Your task to perform on an android device: Go to notification settings Image 0: 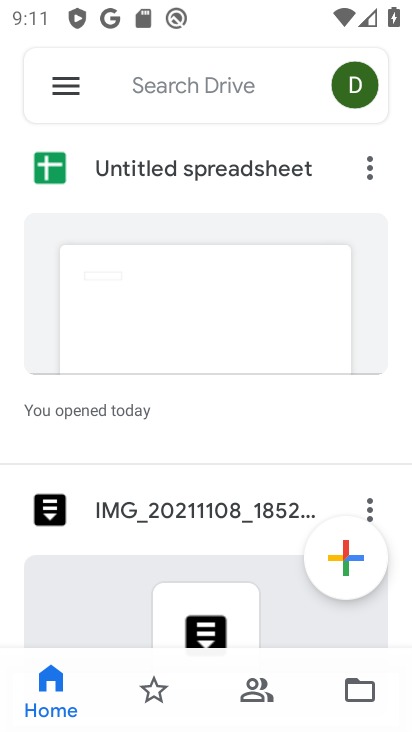
Step 0: press home button
Your task to perform on an android device: Go to notification settings Image 1: 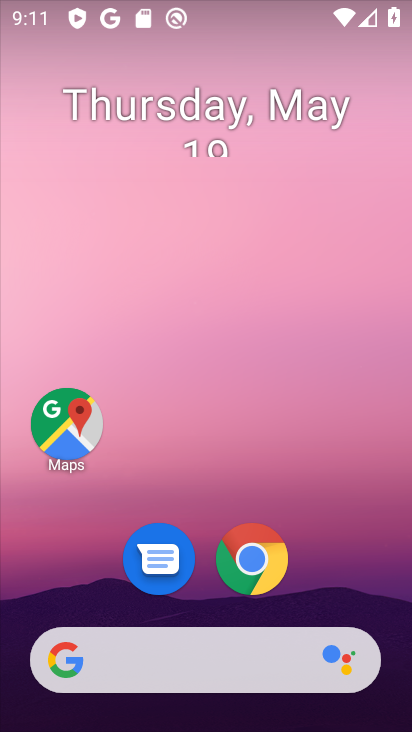
Step 1: drag from (310, 524) to (253, 130)
Your task to perform on an android device: Go to notification settings Image 2: 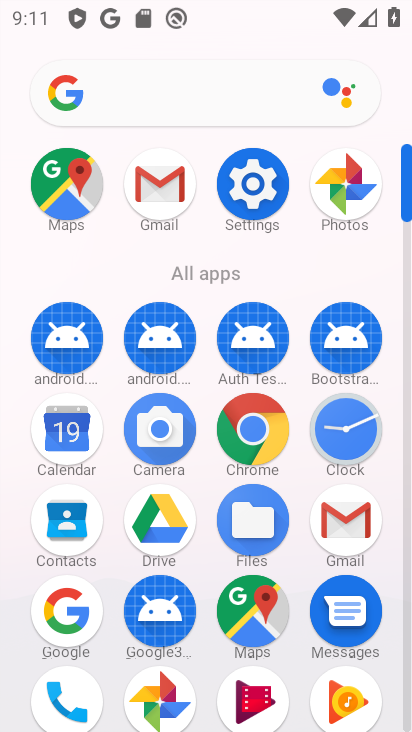
Step 2: click (242, 184)
Your task to perform on an android device: Go to notification settings Image 3: 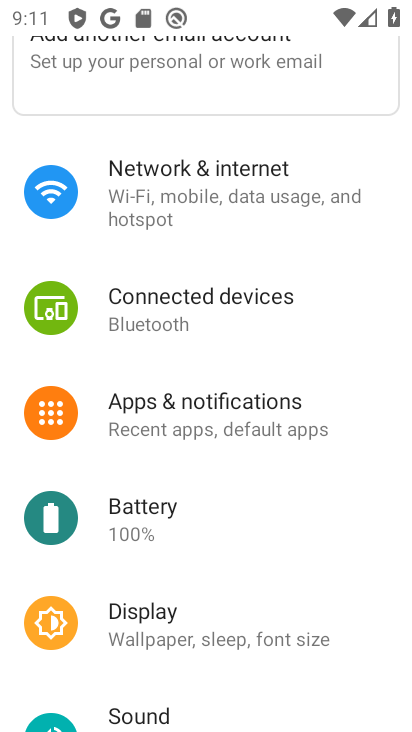
Step 3: drag from (231, 569) to (213, 687)
Your task to perform on an android device: Go to notification settings Image 4: 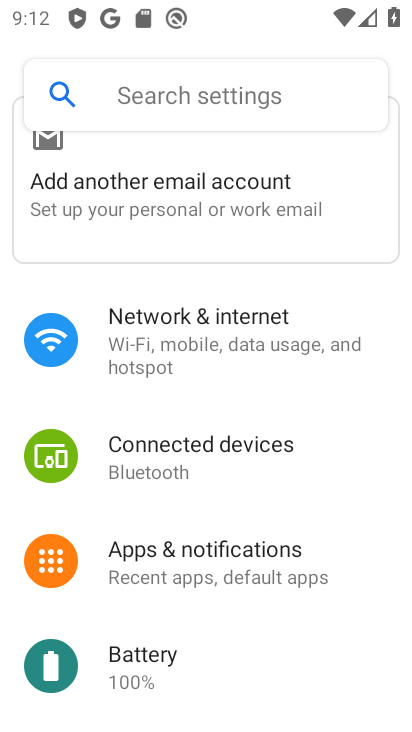
Step 4: drag from (231, 626) to (219, 233)
Your task to perform on an android device: Go to notification settings Image 5: 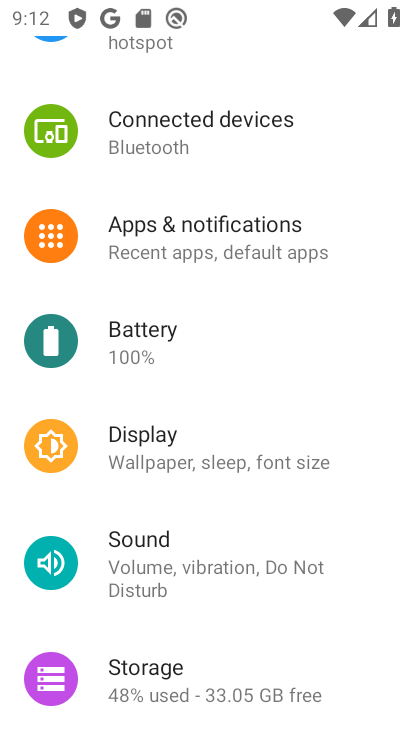
Step 5: drag from (239, 516) to (231, 355)
Your task to perform on an android device: Go to notification settings Image 6: 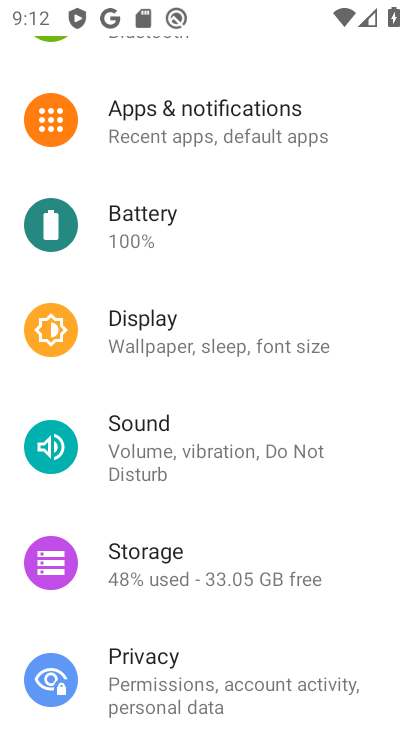
Step 6: click (217, 123)
Your task to perform on an android device: Go to notification settings Image 7: 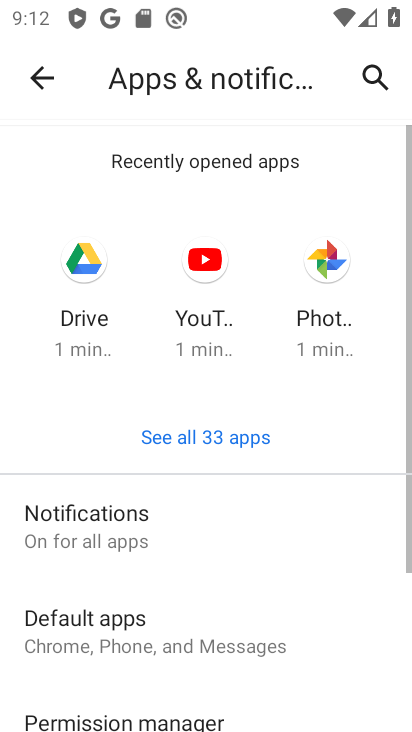
Step 7: click (173, 514)
Your task to perform on an android device: Go to notification settings Image 8: 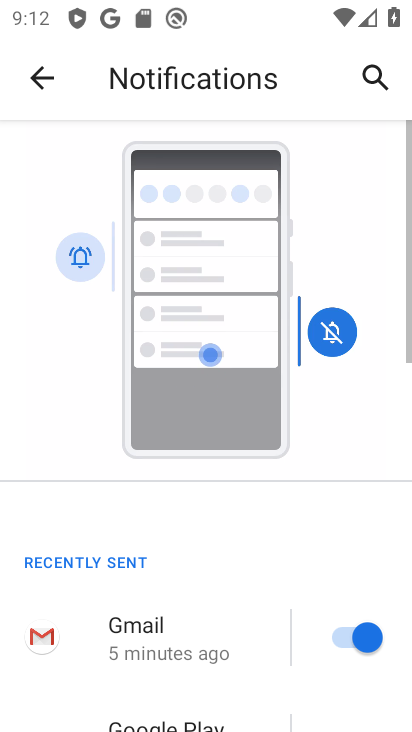
Step 8: task complete